Your task to perform on an android device: create a new album in the google photos Image 0: 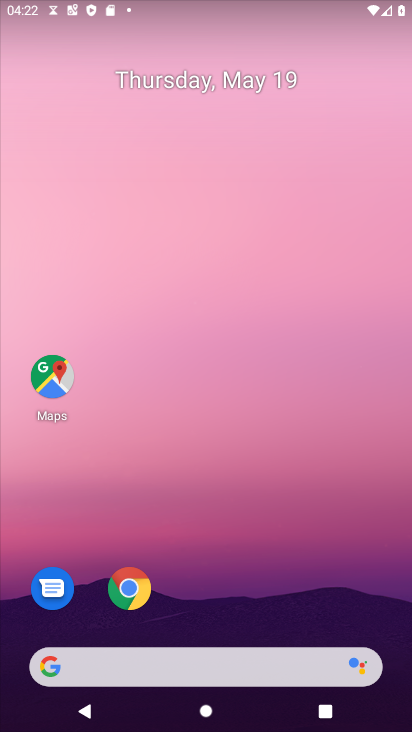
Step 0: drag from (191, 524) to (205, 87)
Your task to perform on an android device: create a new album in the google photos Image 1: 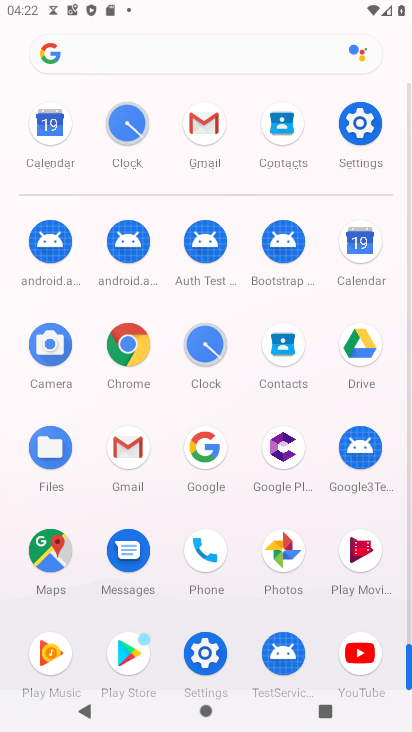
Step 1: click (277, 541)
Your task to perform on an android device: create a new album in the google photos Image 2: 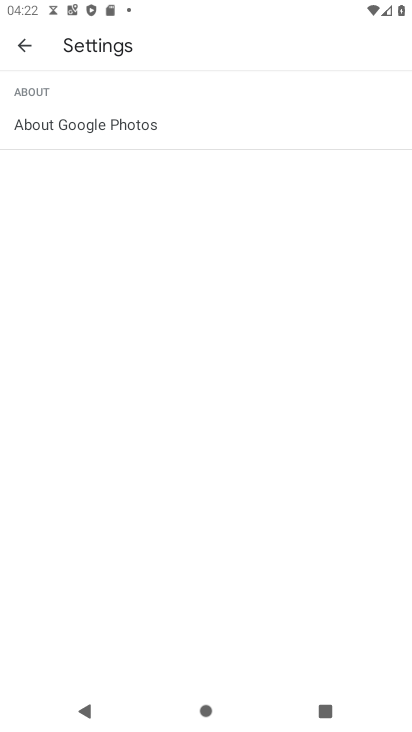
Step 2: click (24, 43)
Your task to perform on an android device: create a new album in the google photos Image 3: 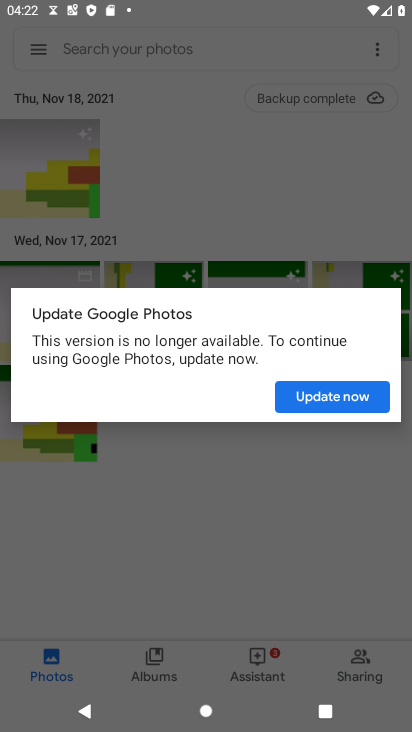
Step 3: click (304, 398)
Your task to perform on an android device: create a new album in the google photos Image 4: 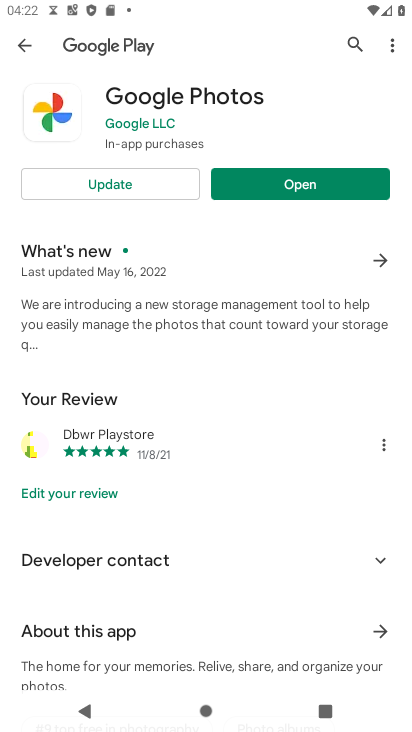
Step 4: click (157, 185)
Your task to perform on an android device: create a new album in the google photos Image 5: 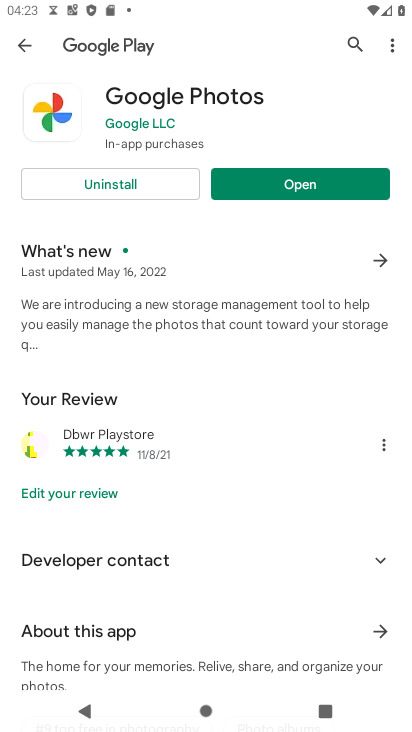
Step 5: click (255, 182)
Your task to perform on an android device: create a new album in the google photos Image 6: 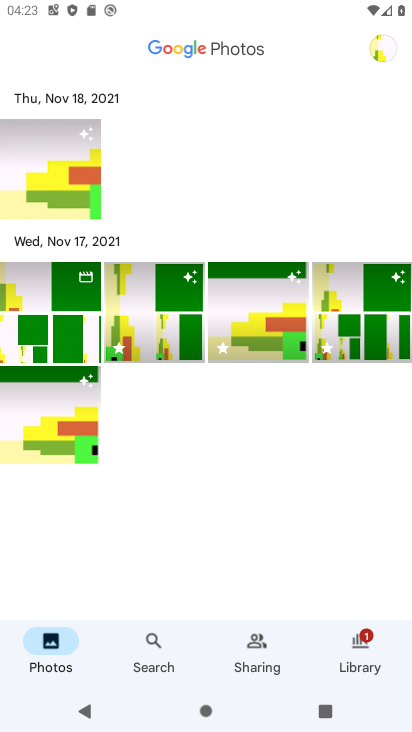
Step 6: click (360, 647)
Your task to perform on an android device: create a new album in the google photos Image 7: 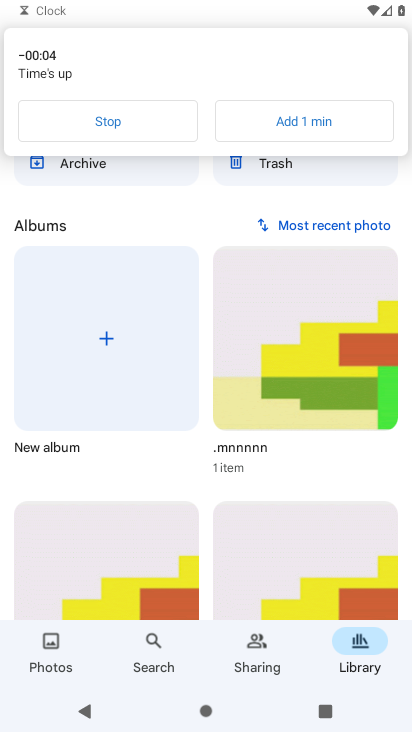
Step 7: click (122, 120)
Your task to perform on an android device: create a new album in the google photos Image 8: 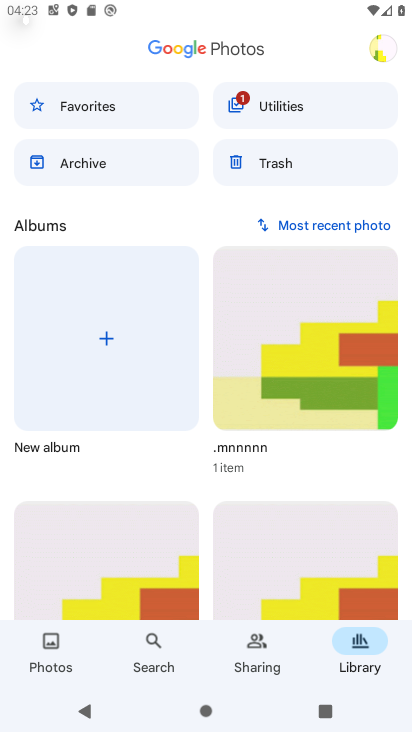
Step 8: click (102, 343)
Your task to perform on an android device: create a new album in the google photos Image 9: 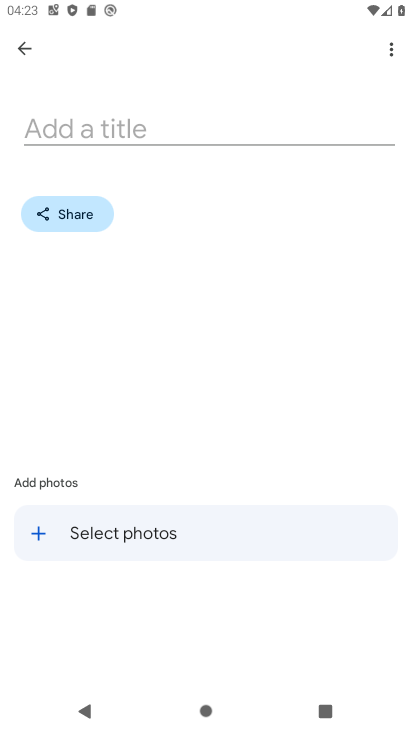
Step 9: click (148, 119)
Your task to perform on an android device: create a new album in the google photos Image 10: 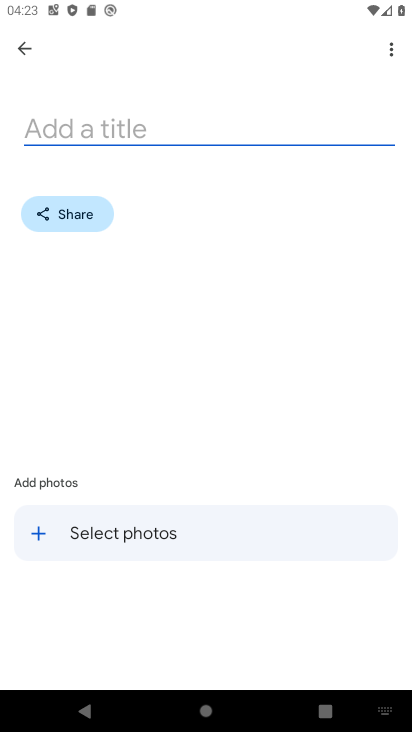
Step 10: type "bleak"
Your task to perform on an android device: create a new album in the google photos Image 11: 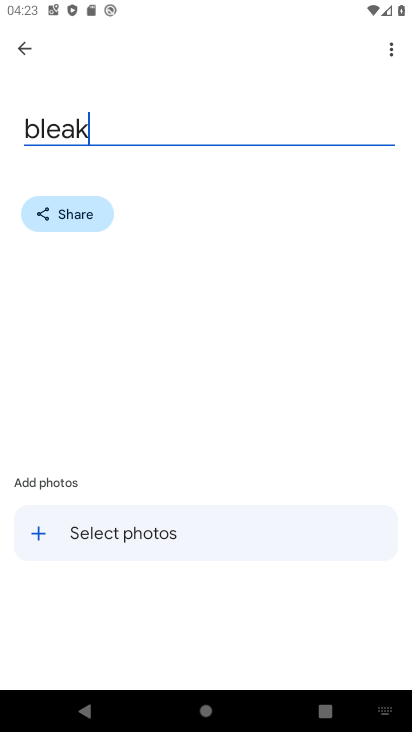
Step 11: click (30, 536)
Your task to perform on an android device: create a new album in the google photos Image 12: 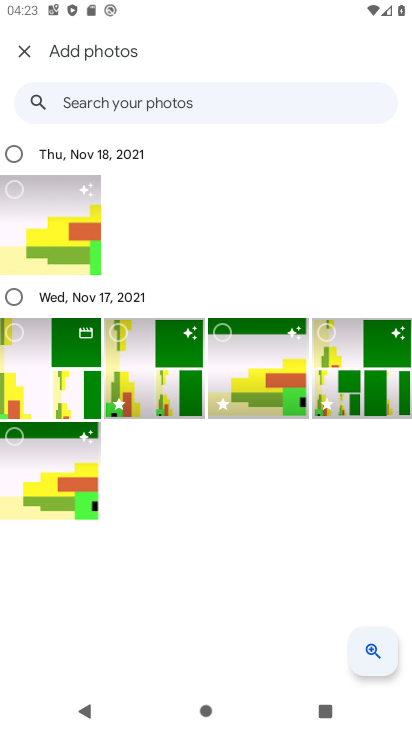
Step 12: click (11, 432)
Your task to perform on an android device: create a new album in the google photos Image 13: 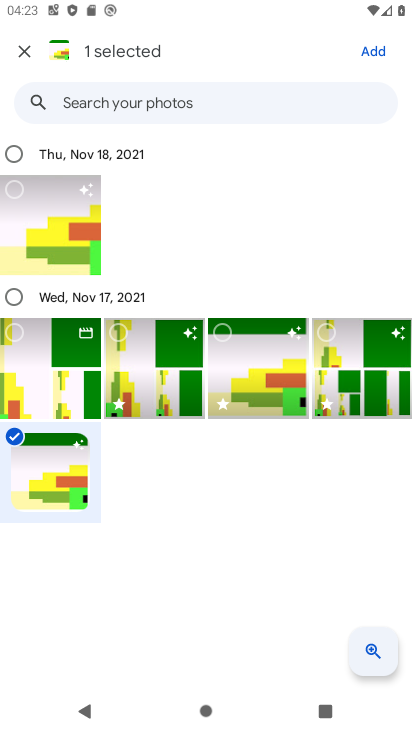
Step 13: click (125, 328)
Your task to perform on an android device: create a new album in the google photos Image 14: 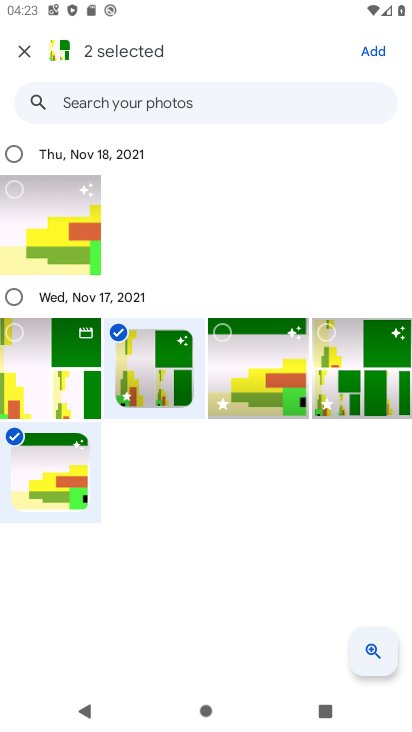
Step 14: click (216, 324)
Your task to perform on an android device: create a new album in the google photos Image 15: 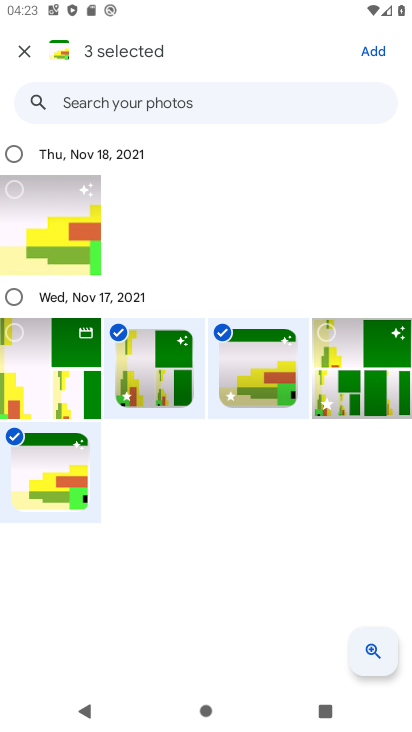
Step 15: click (11, 188)
Your task to perform on an android device: create a new album in the google photos Image 16: 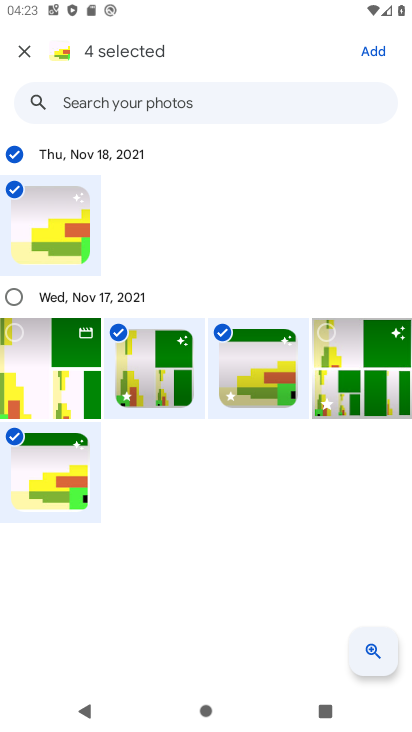
Step 16: click (367, 44)
Your task to perform on an android device: create a new album in the google photos Image 17: 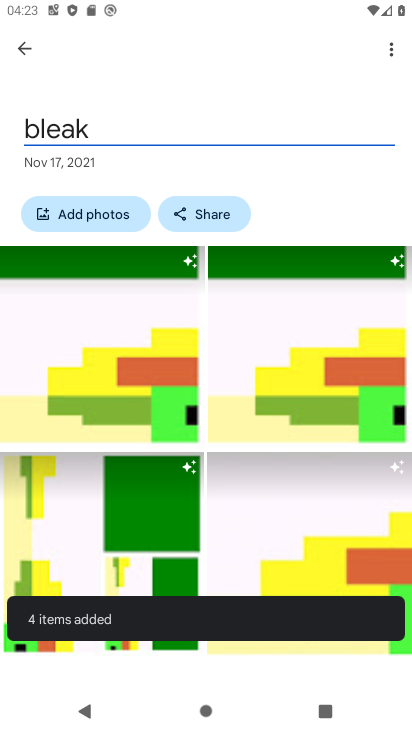
Step 17: click (385, 54)
Your task to perform on an android device: create a new album in the google photos Image 18: 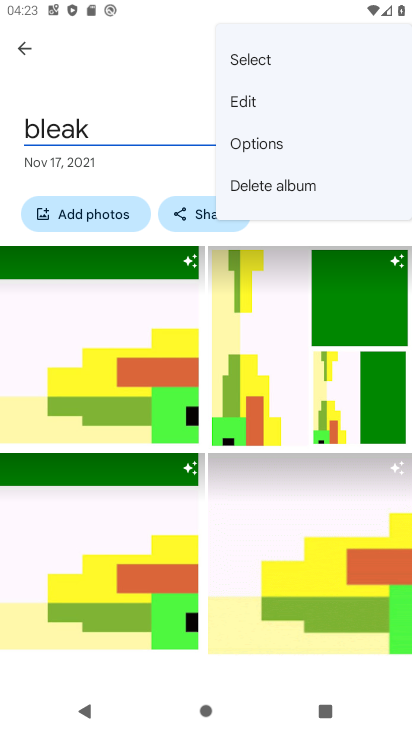
Step 18: click (256, 108)
Your task to perform on an android device: create a new album in the google photos Image 19: 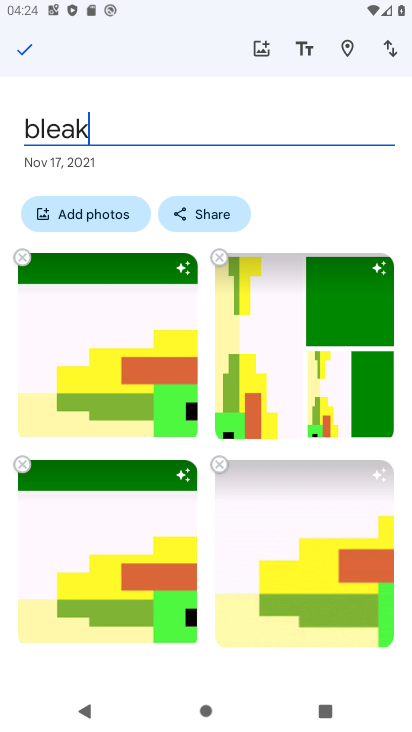
Step 19: click (31, 42)
Your task to perform on an android device: create a new album in the google photos Image 20: 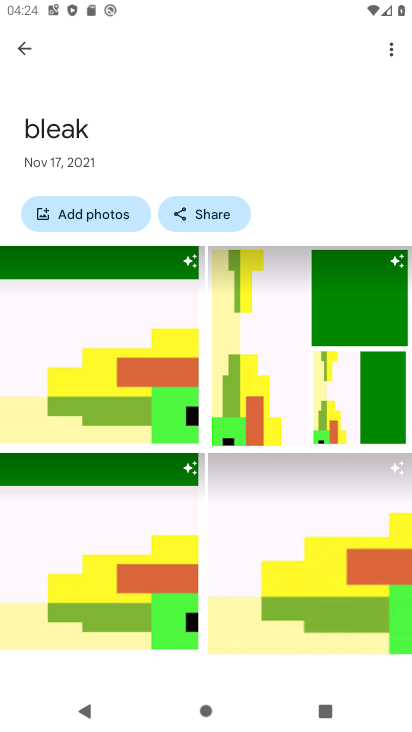
Step 20: task complete